Your task to perform on an android device: toggle improve location accuracy Image 0: 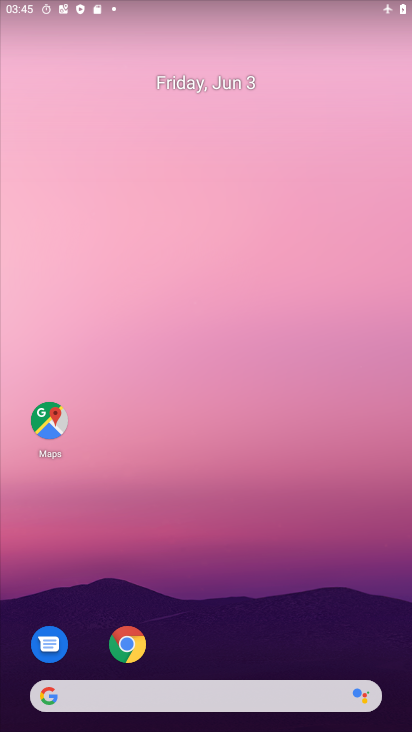
Step 0: drag from (234, 649) to (236, 175)
Your task to perform on an android device: toggle improve location accuracy Image 1: 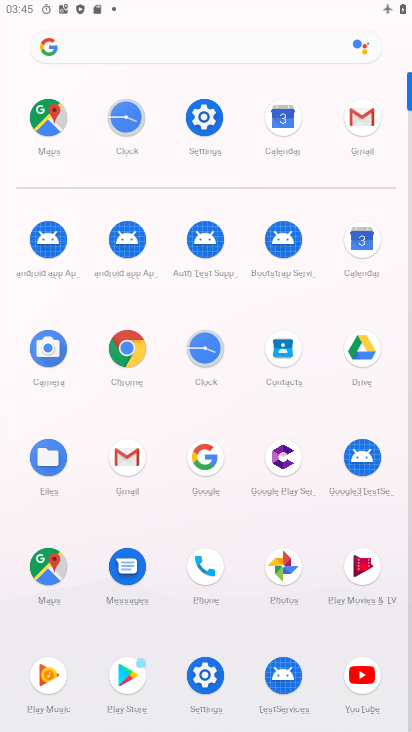
Step 1: click (214, 124)
Your task to perform on an android device: toggle improve location accuracy Image 2: 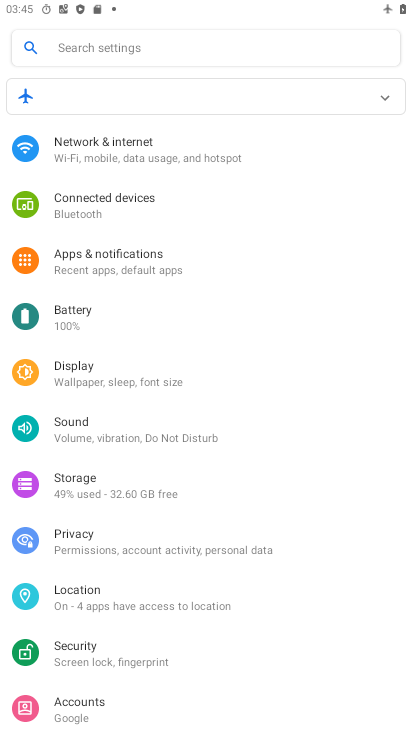
Step 2: click (111, 610)
Your task to perform on an android device: toggle improve location accuracy Image 3: 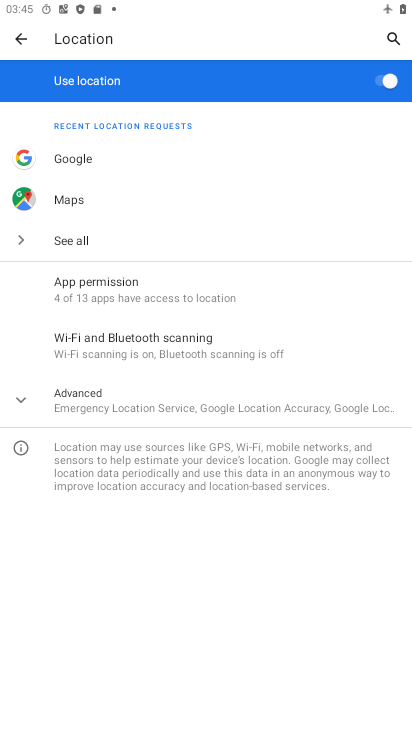
Step 3: click (124, 403)
Your task to perform on an android device: toggle improve location accuracy Image 4: 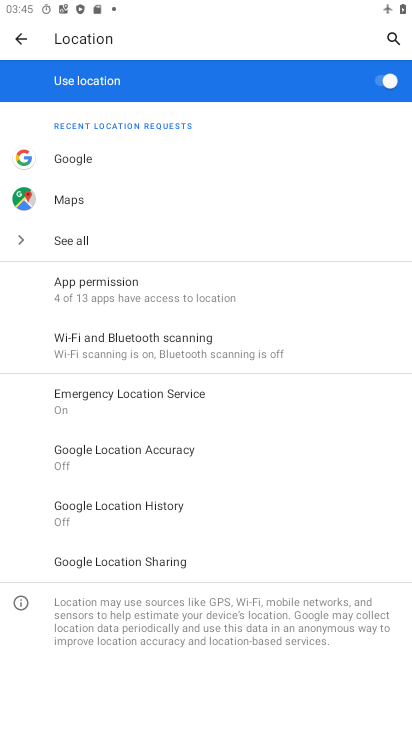
Step 4: click (167, 458)
Your task to perform on an android device: toggle improve location accuracy Image 5: 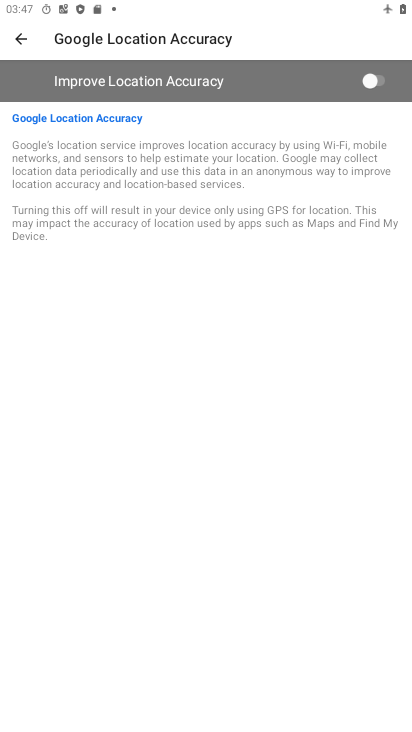
Step 5: task complete